Your task to perform on an android device: Open notification settings Image 0: 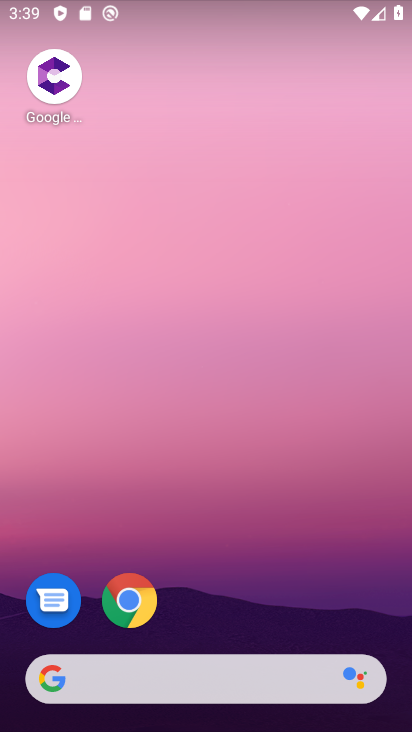
Step 0: drag from (230, 600) to (226, 40)
Your task to perform on an android device: Open notification settings Image 1: 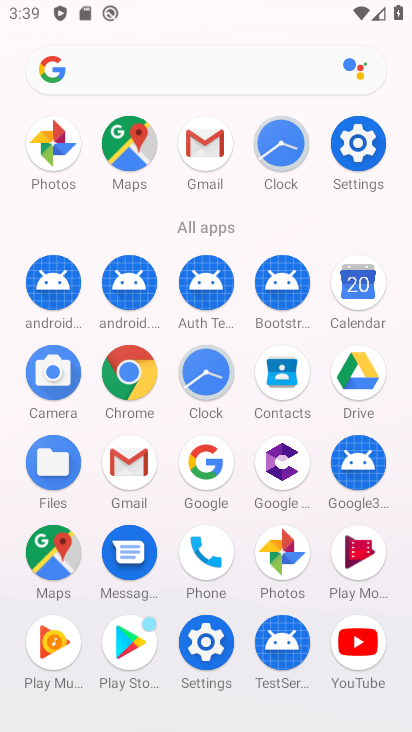
Step 1: click (362, 145)
Your task to perform on an android device: Open notification settings Image 2: 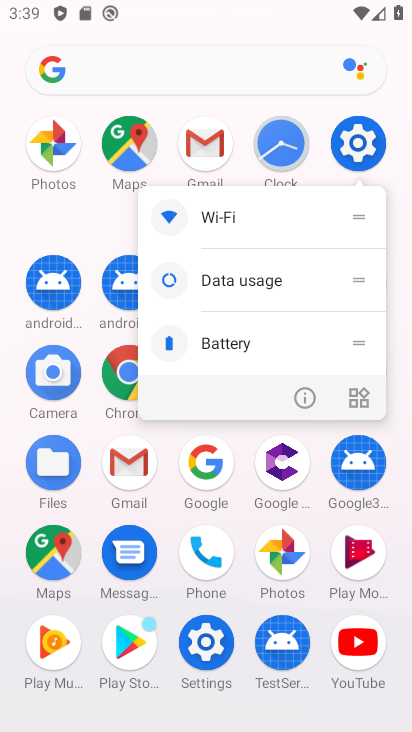
Step 2: click (359, 151)
Your task to perform on an android device: Open notification settings Image 3: 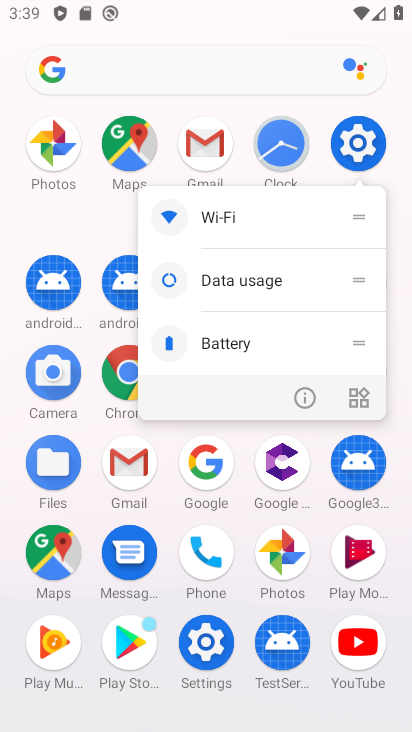
Step 3: click (360, 138)
Your task to perform on an android device: Open notification settings Image 4: 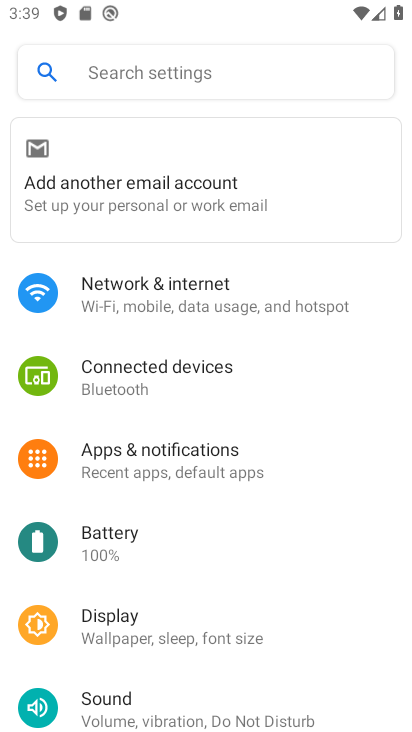
Step 4: click (168, 456)
Your task to perform on an android device: Open notification settings Image 5: 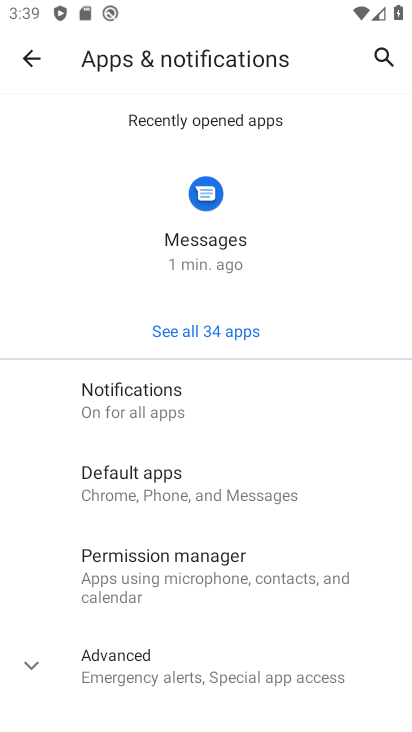
Step 5: task complete